Your task to perform on an android device: toggle notification dots Image 0: 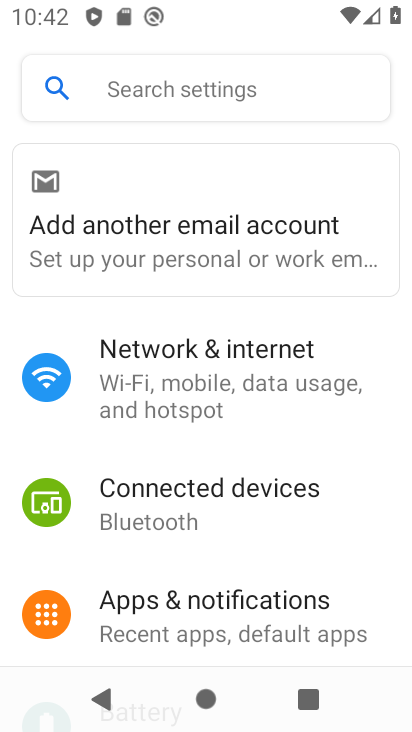
Step 0: drag from (200, 551) to (278, 238)
Your task to perform on an android device: toggle notification dots Image 1: 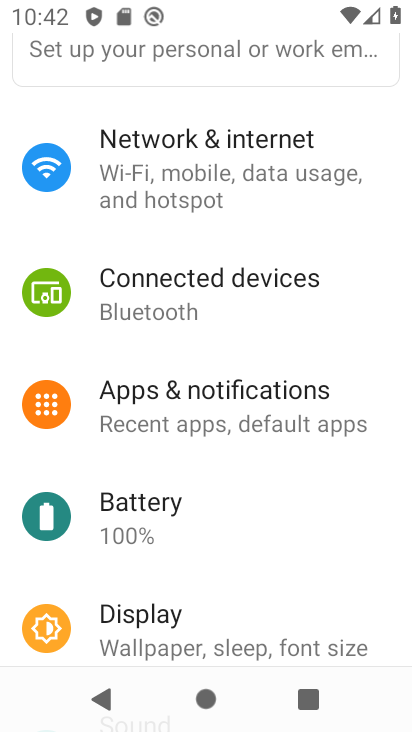
Step 1: click (246, 426)
Your task to perform on an android device: toggle notification dots Image 2: 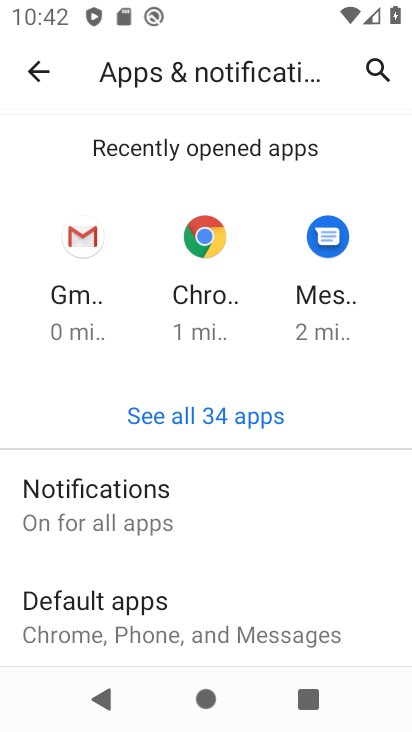
Step 2: click (168, 532)
Your task to perform on an android device: toggle notification dots Image 3: 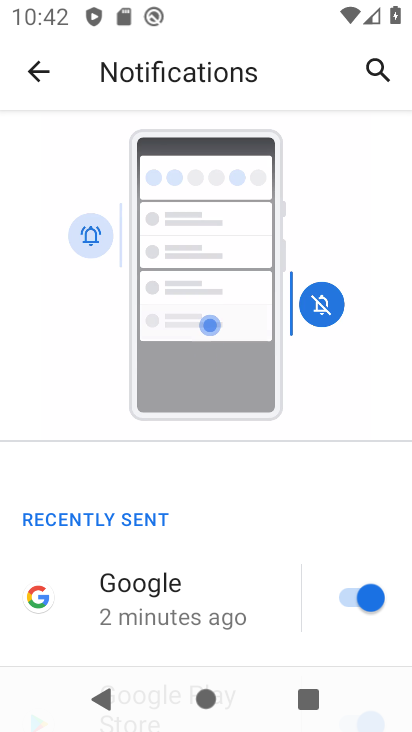
Step 3: drag from (138, 529) to (265, 117)
Your task to perform on an android device: toggle notification dots Image 4: 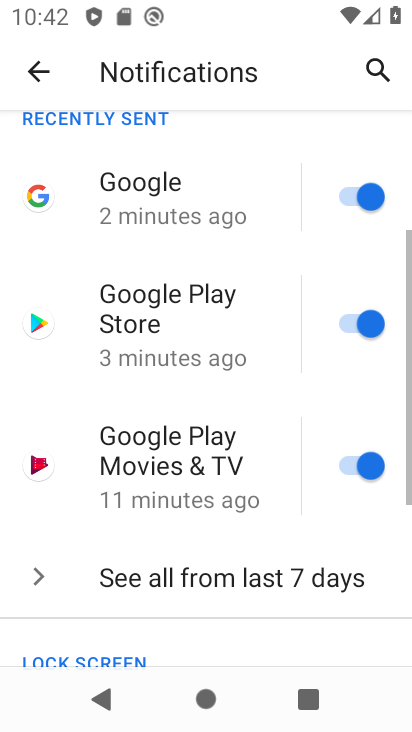
Step 4: drag from (198, 665) to (307, 148)
Your task to perform on an android device: toggle notification dots Image 5: 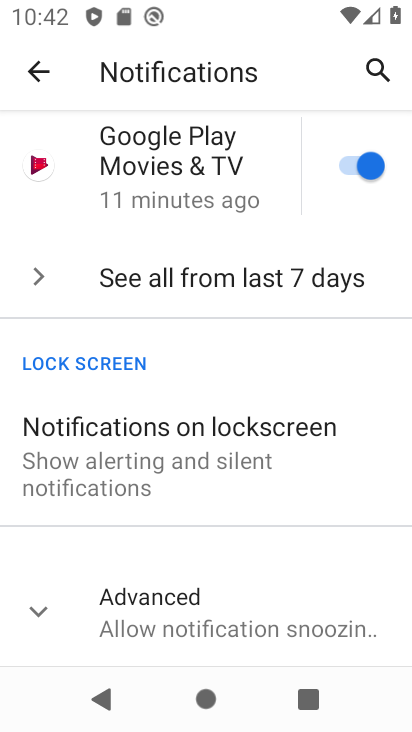
Step 5: click (183, 613)
Your task to perform on an android device: toggle notification dots Image 6: 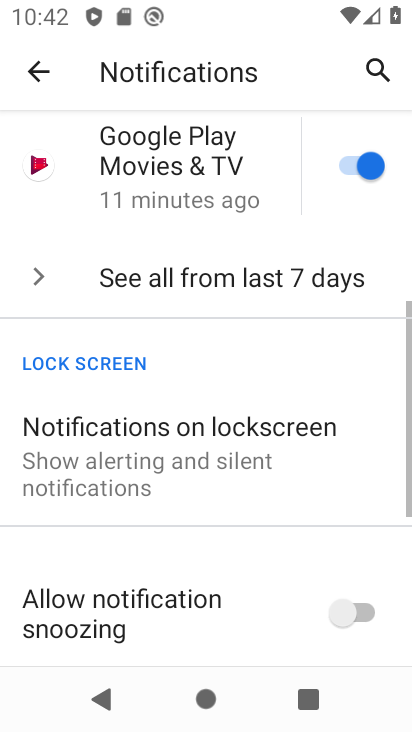
Step 6: drag from (207, 415) to (287, 194)
Your task to perform on an android device: toggle notification dots Image 7: 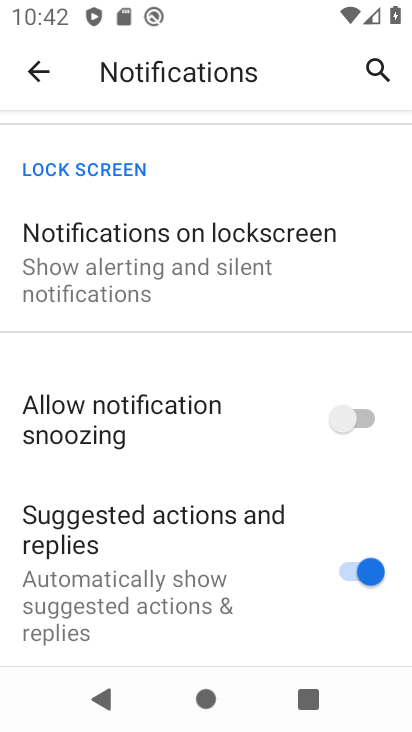
Step 7: drag from (209, 511) to (331, 129)
Your task to perform on an android device: toggle notification dots Image 8: 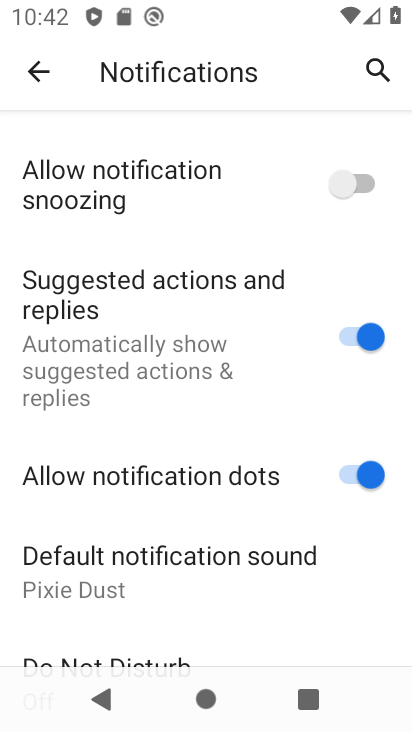
Step 8: click (345, 475)
Your task to perform on an android device: toggle notification dots Image 9: 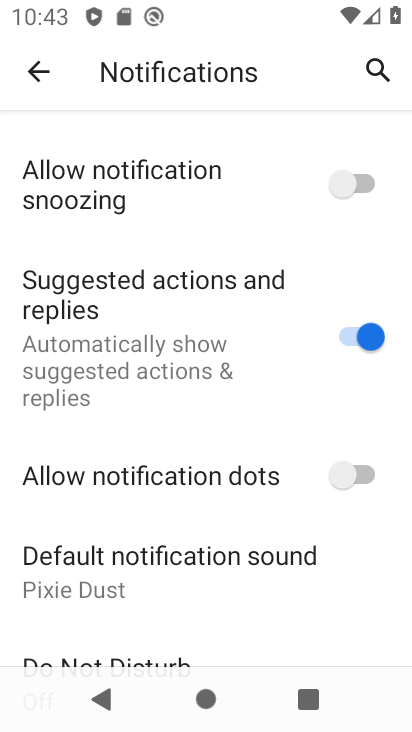
Step 9: task complete